Your task to perform on an android device: Go to privacy settings Image 0: 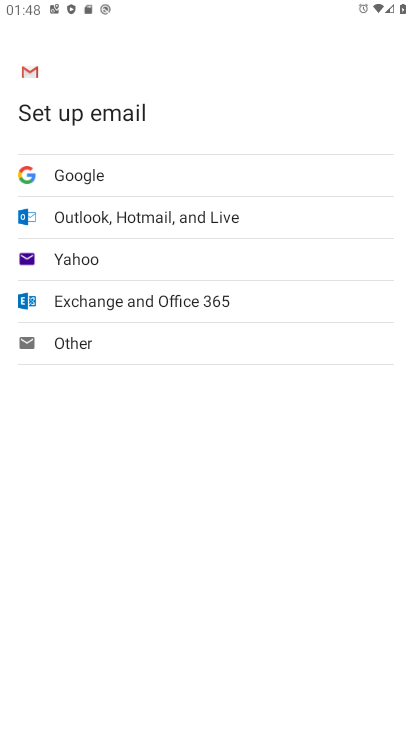
Step 0: press home button
Your task to perform on an android device: Go to privacy settings Image 1: 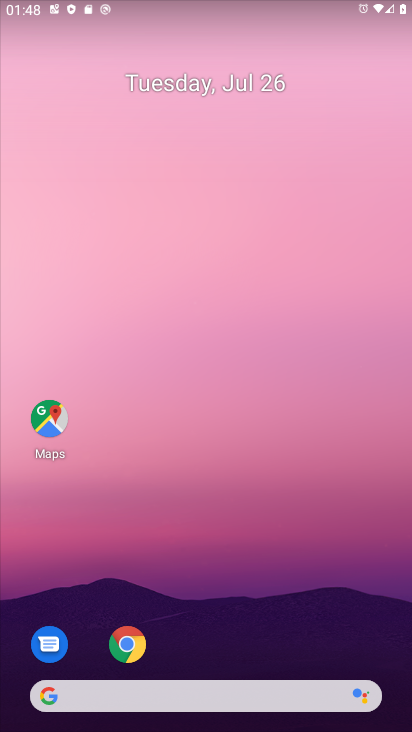
Step 1: drag from (241, 665) to (263, 137)
Your task to perform on an android device: Go to privacy settings Image 2: 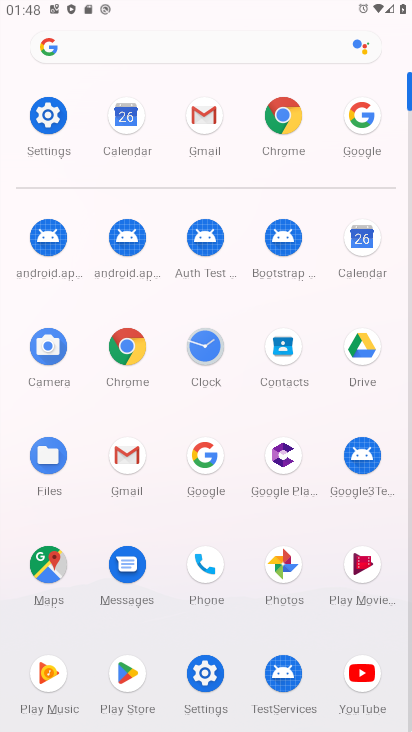
Step 2: click (50, 108)
Your task to perform on an android device: Go to privacy settings Image 3: 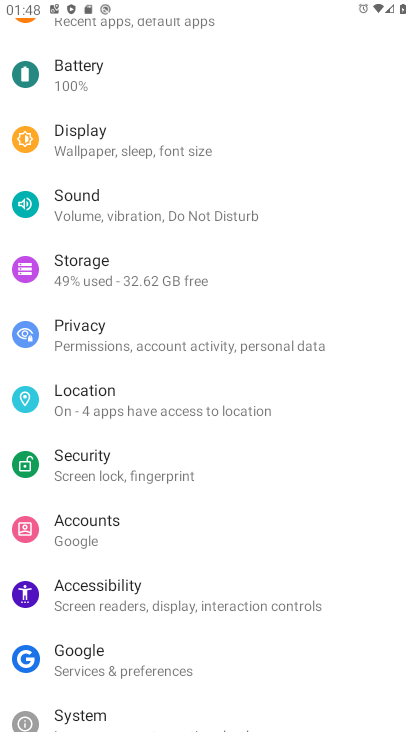
Step 3: click (118, 318)
Your task to perform on an android device: Go to privacy settings Image 4: 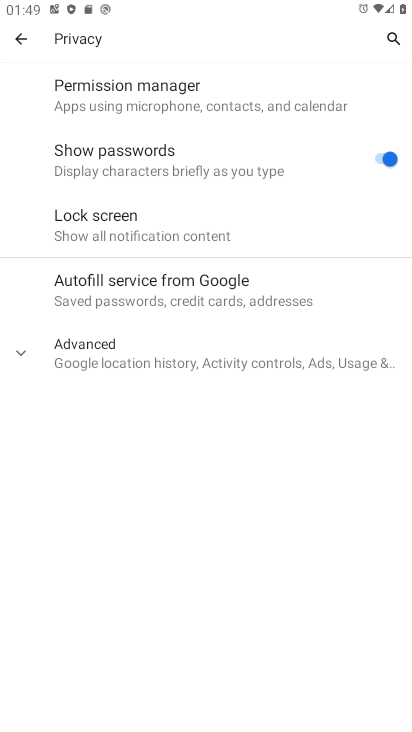
Step 4: task complete